Your task to perform on an android device: When is my next appointment? Image 0: 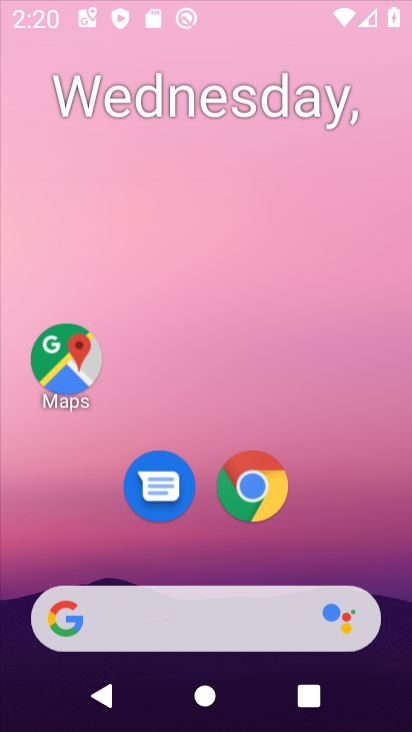
Step 0: click (321, 140)
Your task to perform on an android device: When is my next appointment? Image 1: 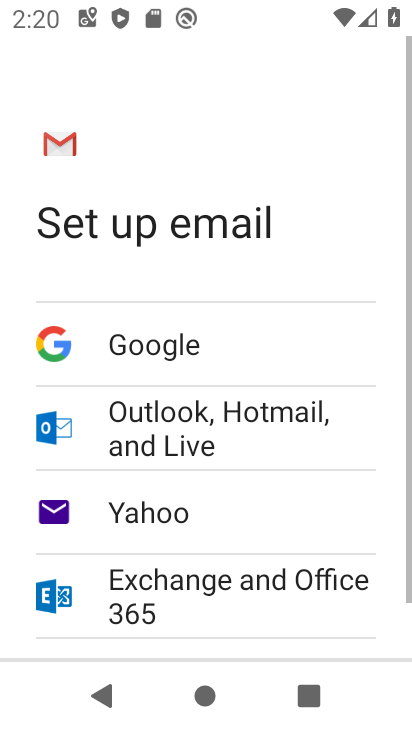
Step 1: press home button
Your task to perform on an android device: When is my next appointment? Image 2: 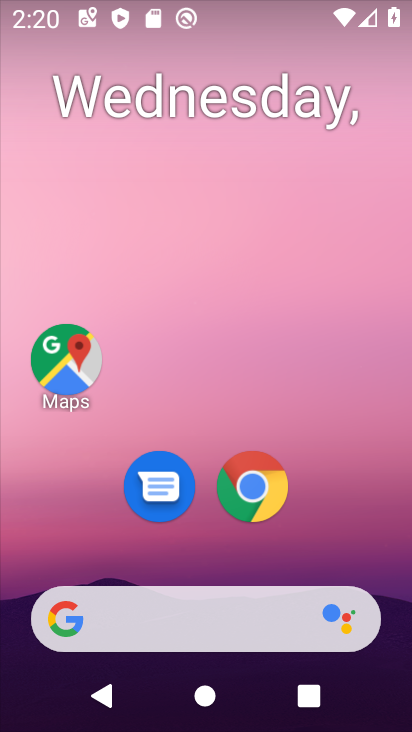
Step 2: drag from (318, 532) to (302, 105)
Your task to perform on an android device: When is my next appointment? Image 3: 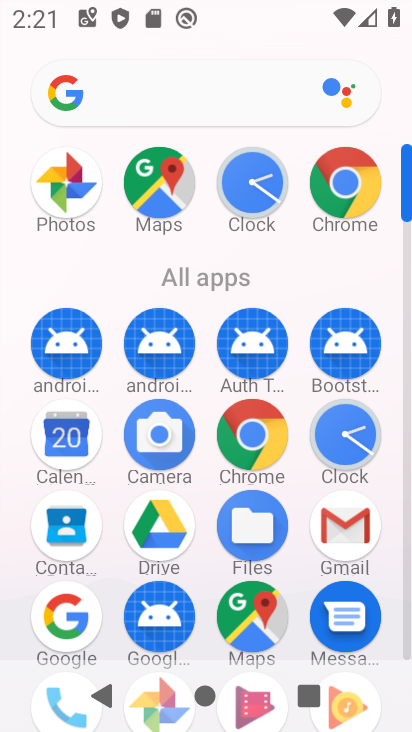
Step 3: click (84, 444)
Your task to perform on an android device: When is my next appointment? Image 4: 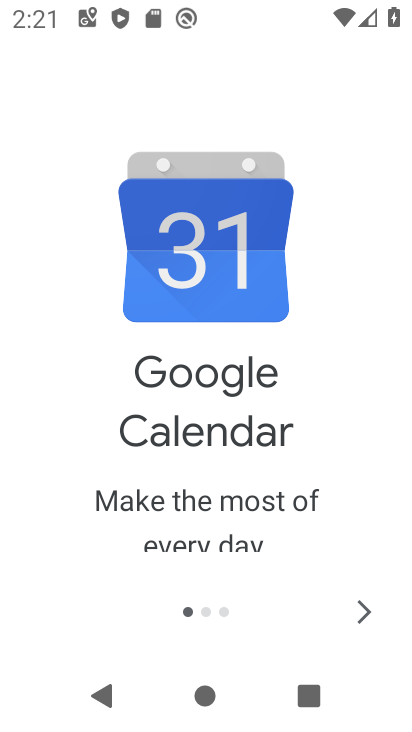
Step 4: click (351, 618)
Your task to perform on an android device: When is my next appointment? Image 5: 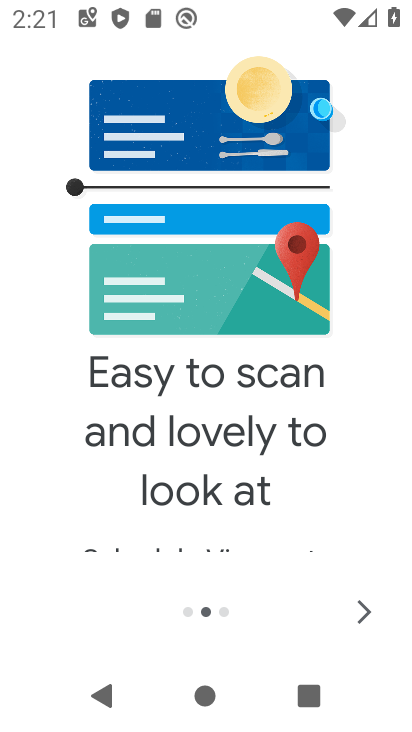
Step 5: click (351, 618)
Your task to perform on an android device: When is my next appointment? Image 6: 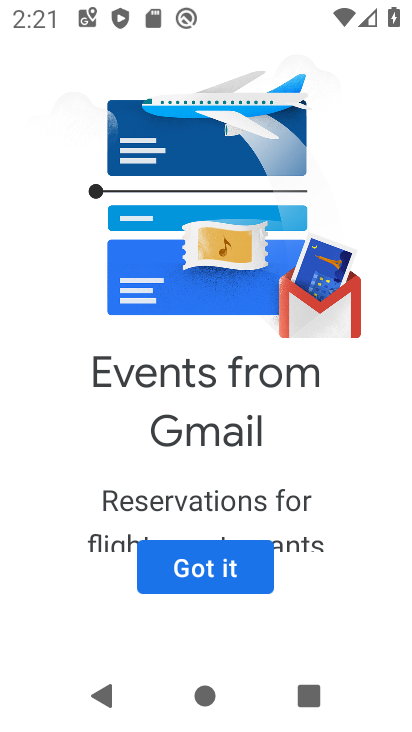
Step 6: click (230, 576)
Your task to perform on an android device: When is my next appointment? Image 7: 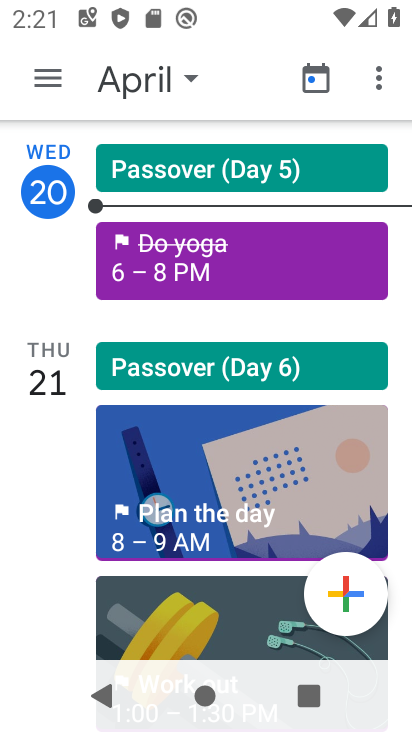
Step 7: click (139, 92)
Your task to perform on an android device: When is my next appointment? Image 8: 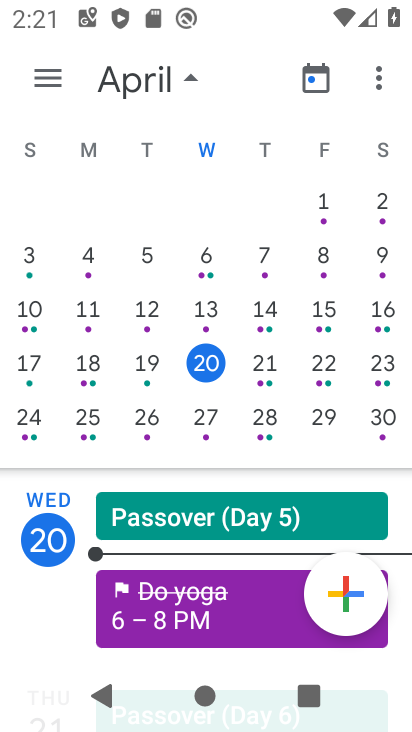
Step 8: click (267, 369)
Your task to perform on an android device: When is my next appointment? Image 9: 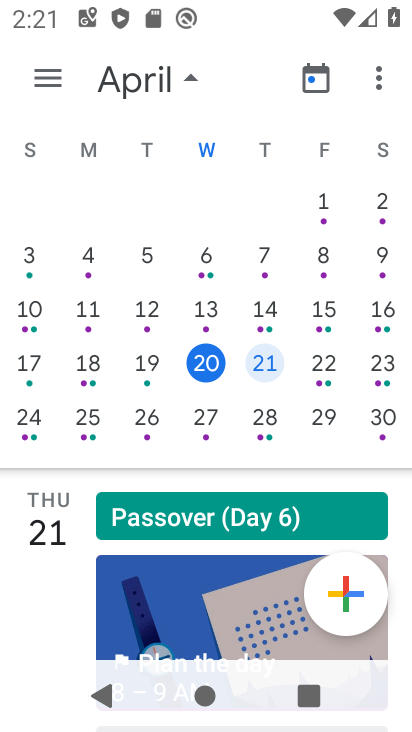
Step 9: click (311, 372)
Your task to perform on an android device: When is my next appointment? Image 10: 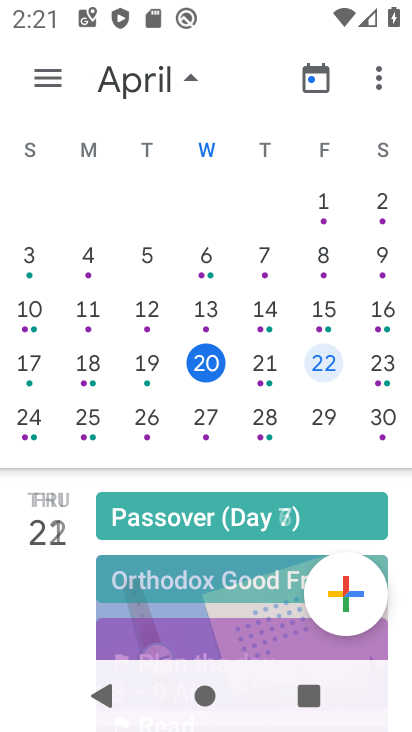
Step 10: task complete